Your task to perform on an android device: uninstall "Truecaller" Image 0: 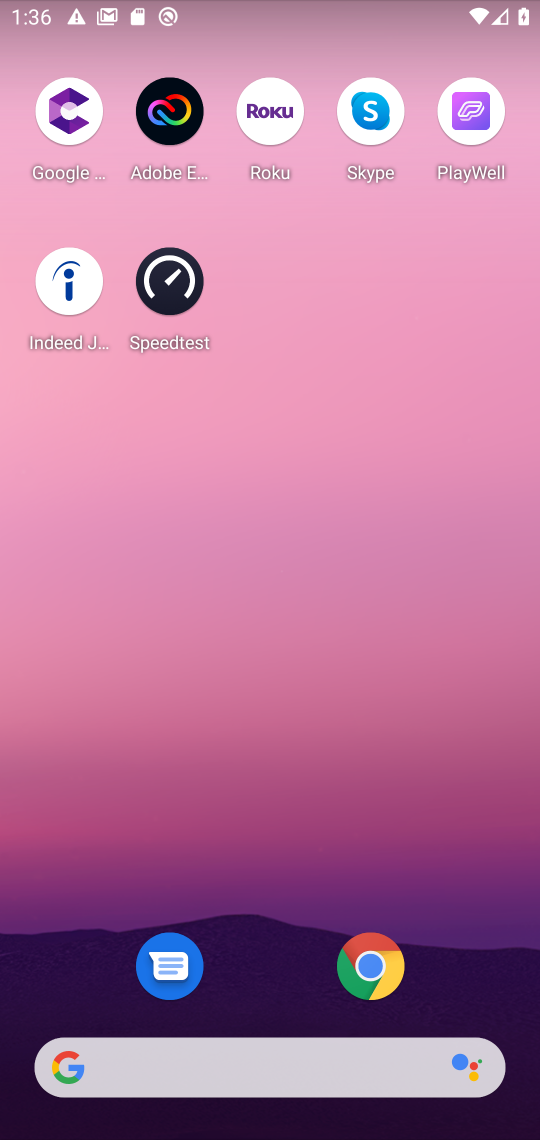
Step 0: drag from (292, 1034) to (332, 174)
Your task to perform on an android device: uninstall "Truecaller" Image 1: 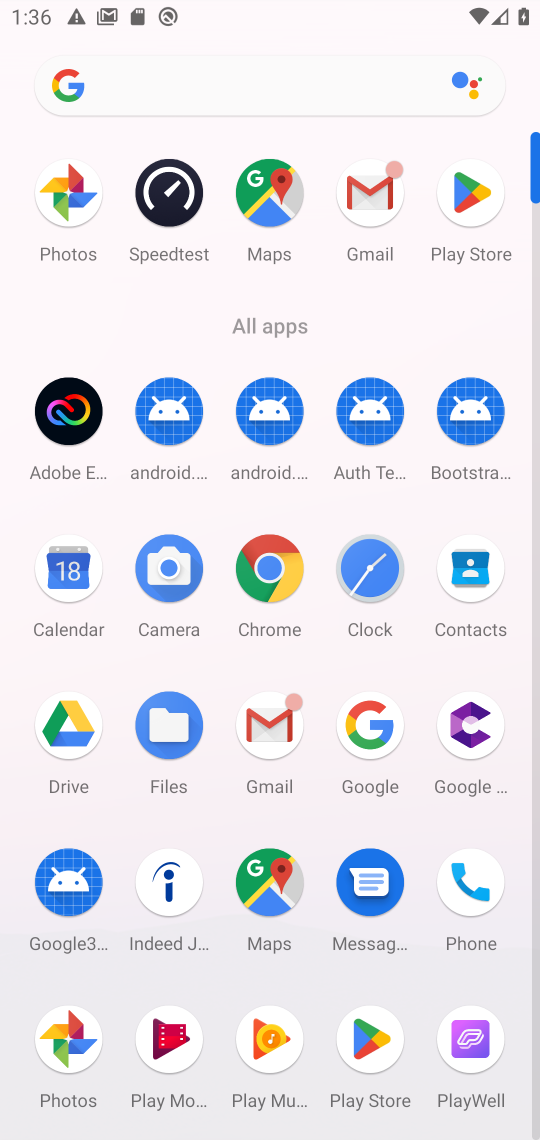
Step 1: click (473, 207)
Your task to perform on an android device: uninstall "Truecaller" Image 2: 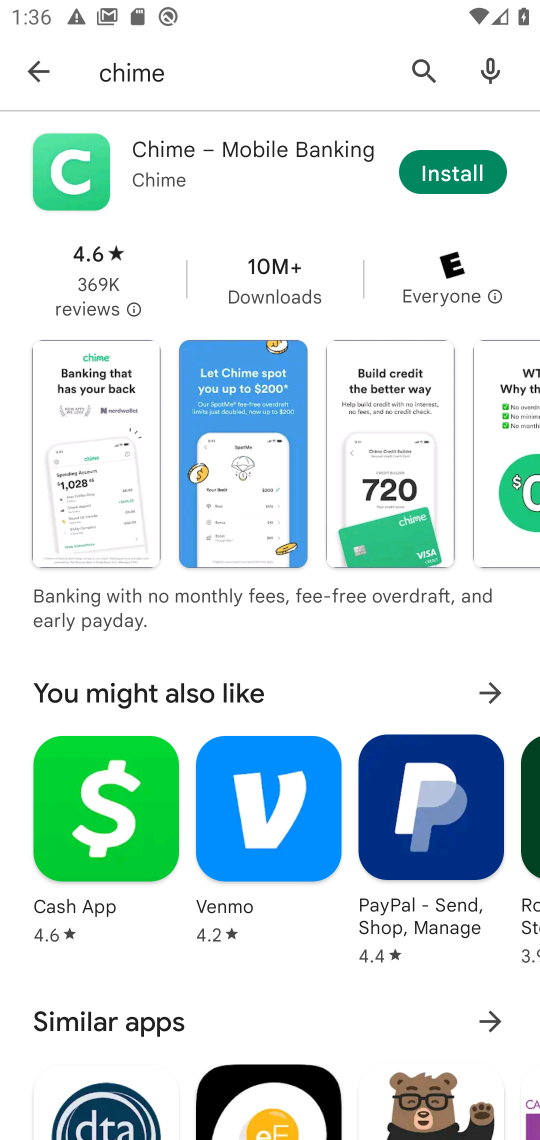
Step 2: click (29, 65)
Your task to perform on an android device: uninstall "Truecaller" Image 3: 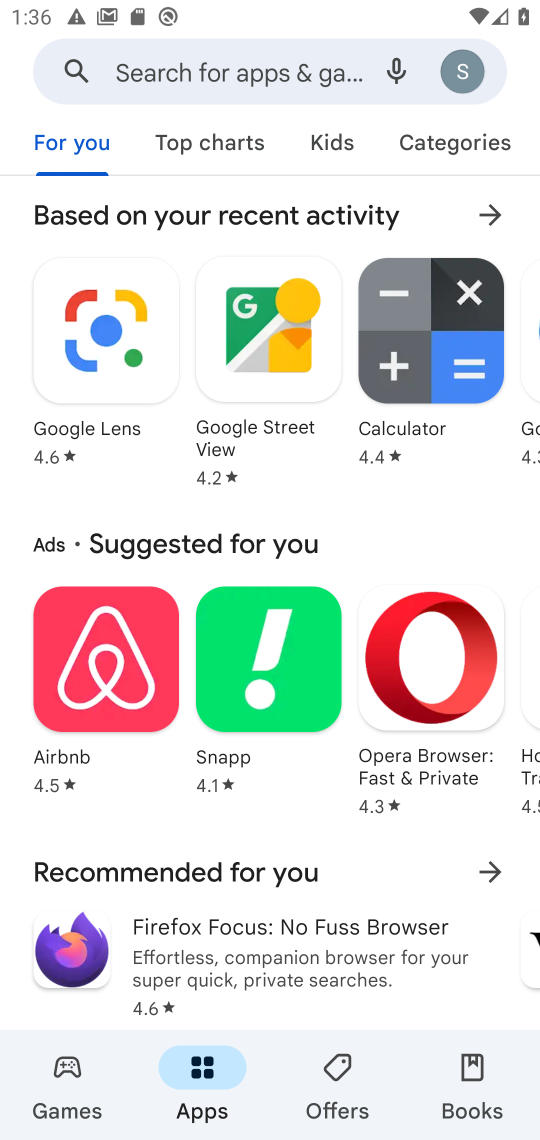
Step 3: click (233, 78)
Your task to perform on an android device: uninstall "Truecaller" Image 4: 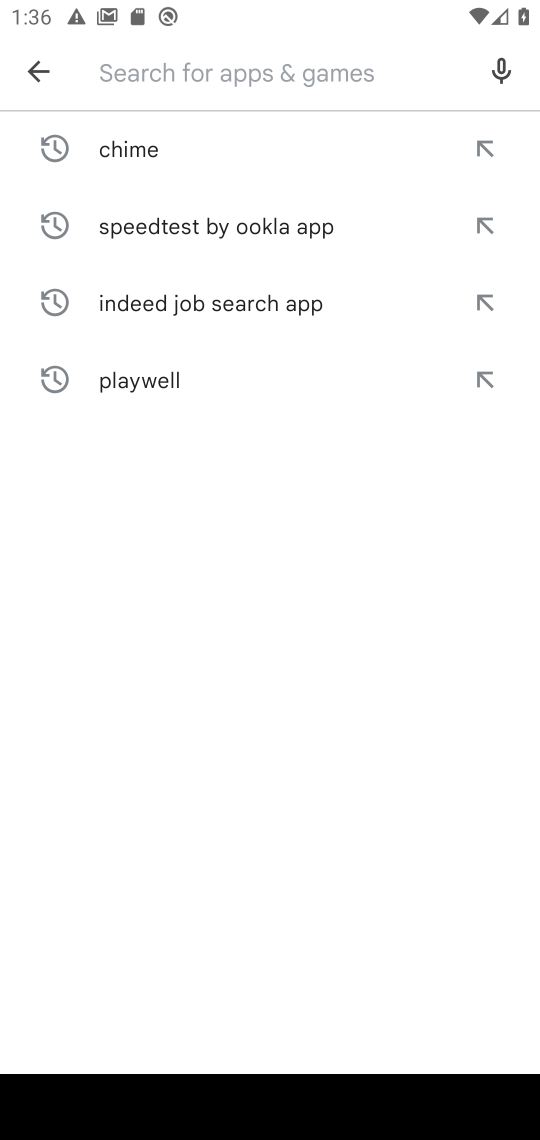
Step 4: type "Truecaller"
Your task to perform on an android device: uninstall "Truecaller" Image 5: 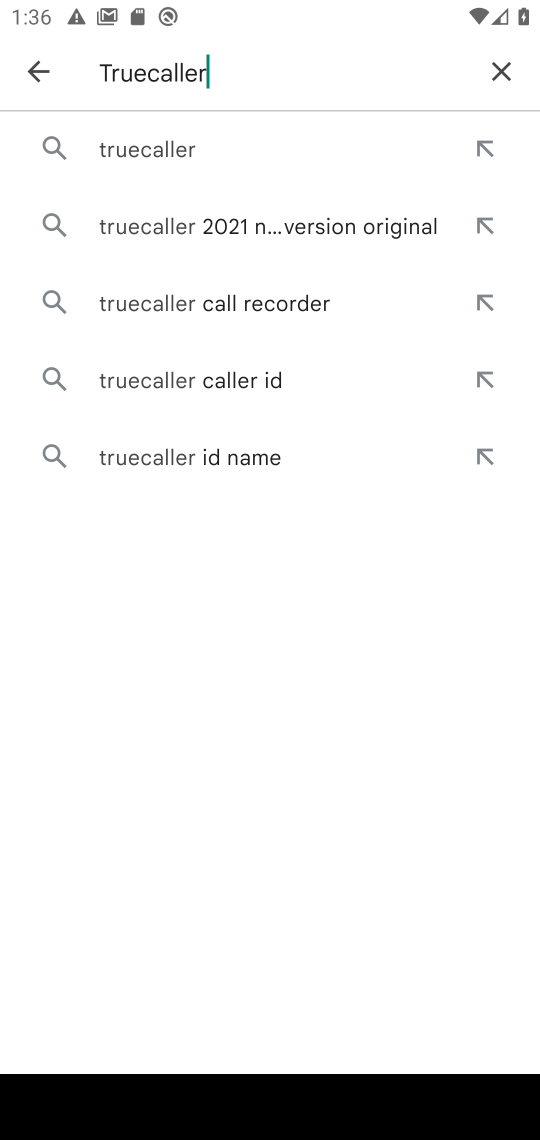
Step 5: click (159, 140)
Your task to perform on an android device: uninstall "Truecaller" Image 6: 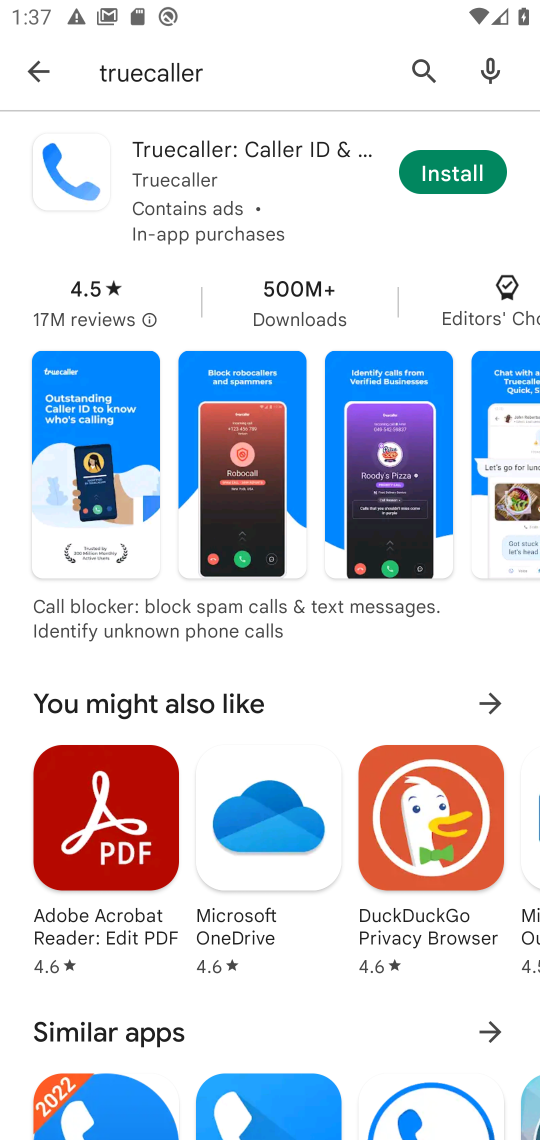
Step 6: task complete